Your task to perform on an android device: Open Google Chrome and click the shortcut for Amazon.com Image 0: 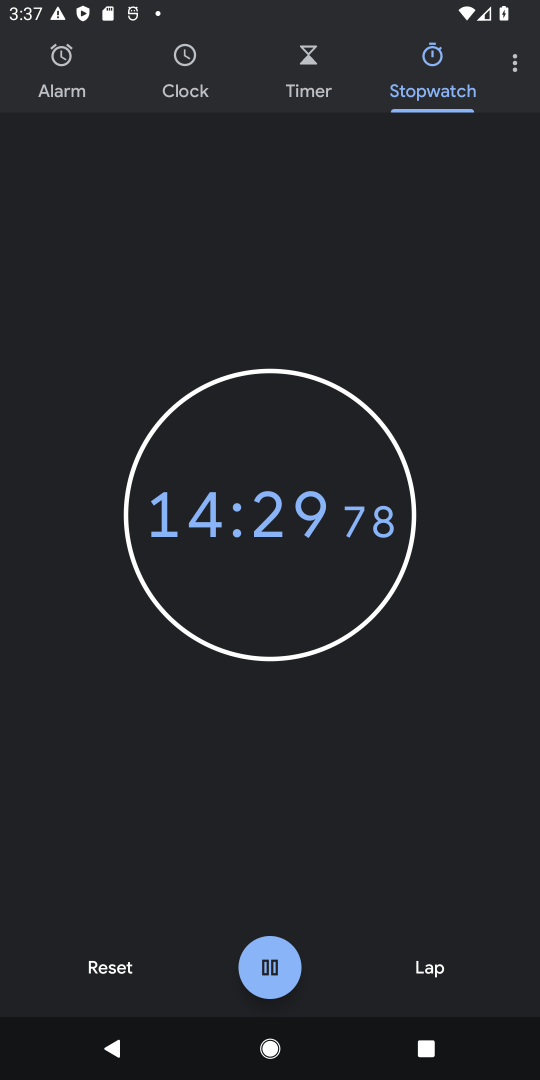
Step 0: press home button
Your task to perform on an android device: Open Google Chrome and click the shortcut for Amazon.com Image 1: 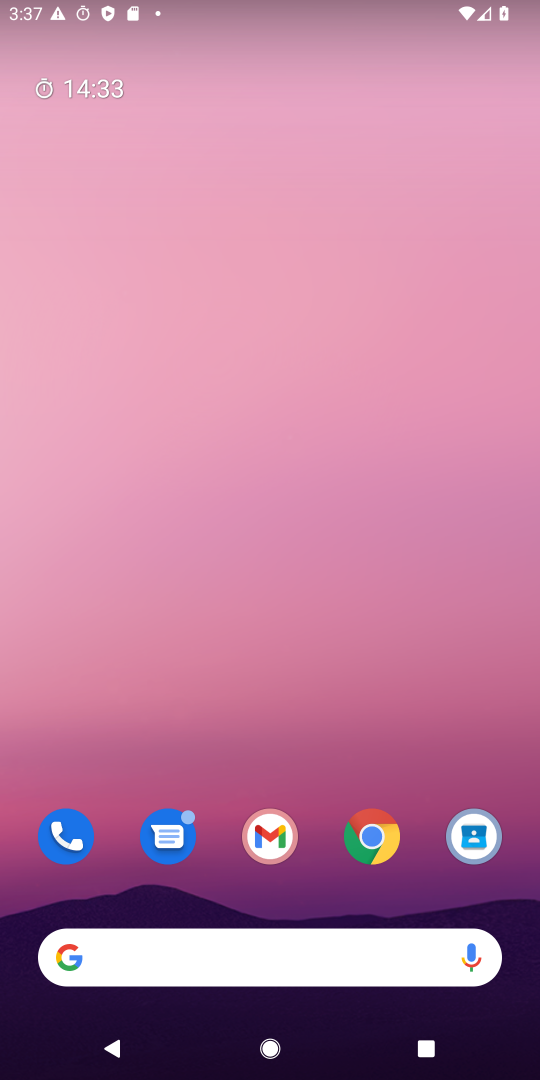
Step 1: click (364, 837)
Your task to perform on an android device: Open Google Chrome and click the shortcut for Amazon.com Image 2: 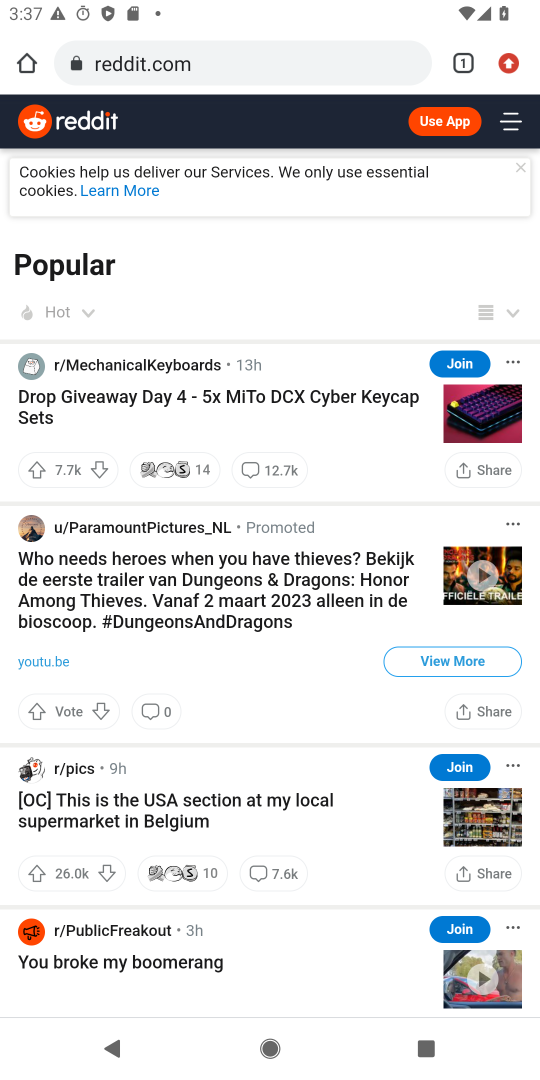
Step 2: click (513, 58)
Your task to perform on an android device: Open Google Chrome and click the shortcut for Amazon.com Image 3: 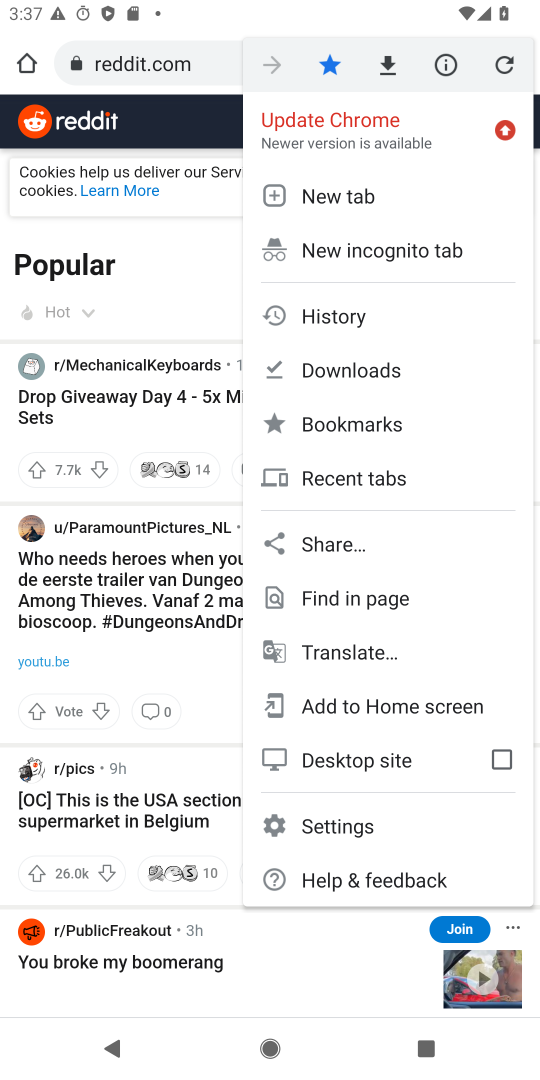
Step 3: click (506, 63)
Your task to perform on an android device: Open Google Chrome and click the shortcut for Amazon.com Image 4: 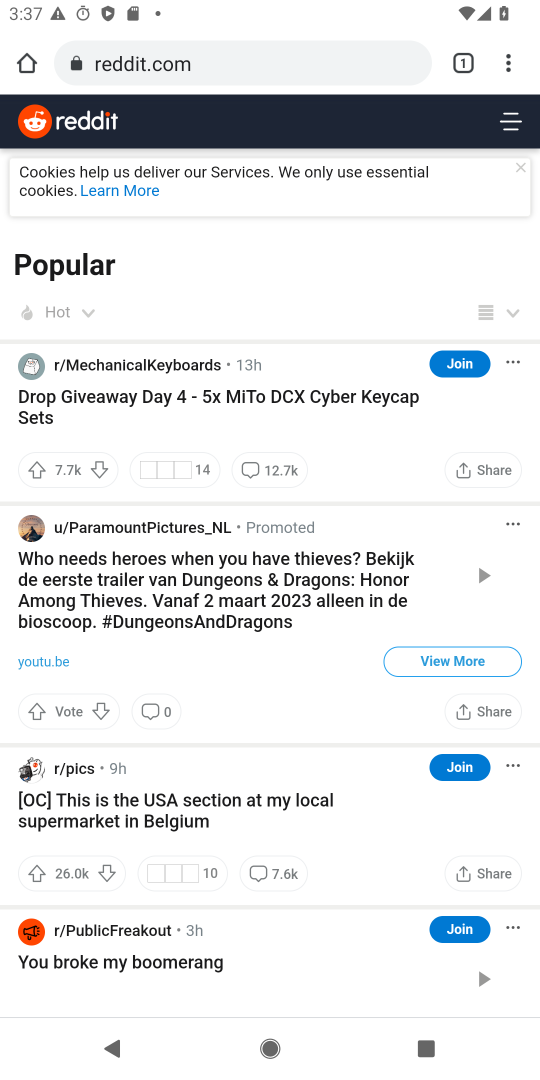
Step 4: click (511, 76)
Your task to perform on an android device: Open Google Chrome and click the shortcut for Amazon.com Image 5: 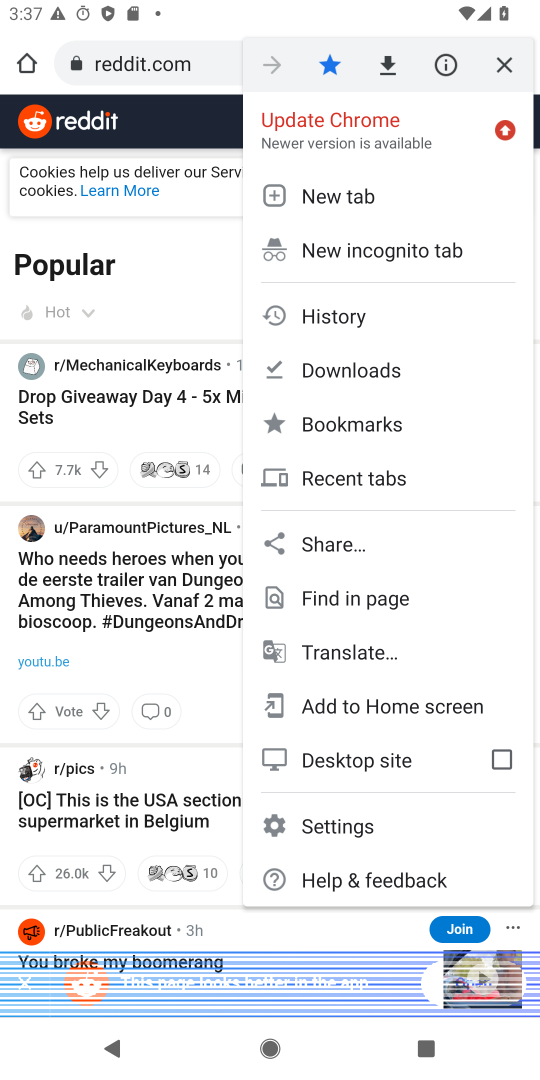
Step 5: click (361, 194)
Your task to perform on an android device: Open Google Chrome and click the shortcut for Amazon.com Image 6: 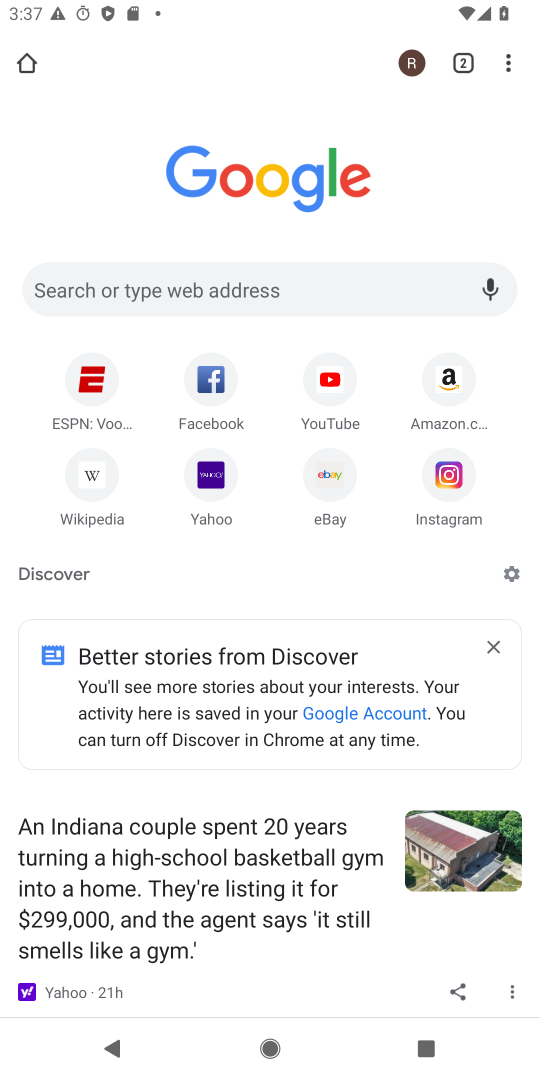
Step 6: click (438, 371)
Your task to perform on an android device: Open Google Chrome and click the shortcut for Amazon.com Image 7: 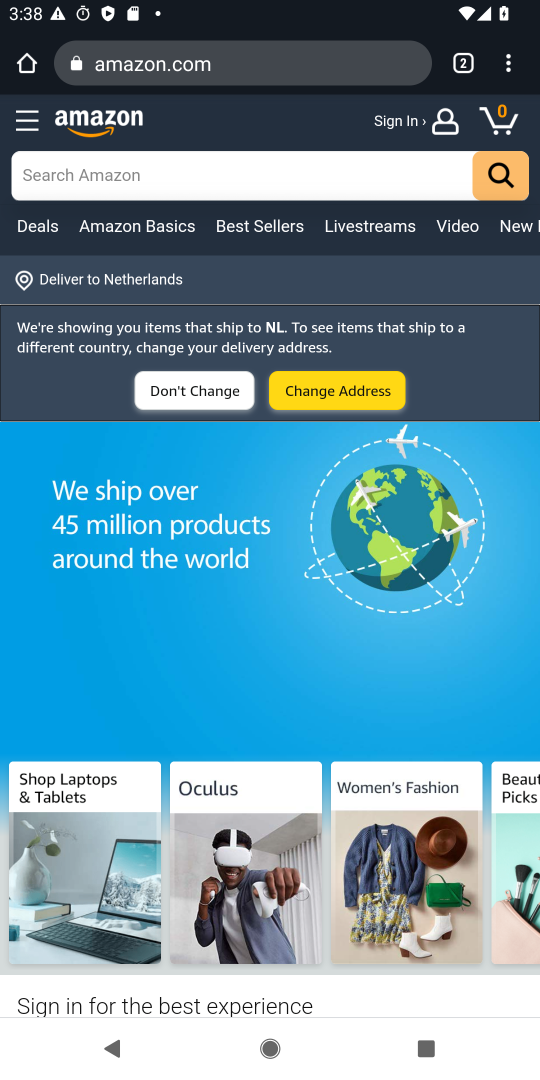
Step 7: task complete